Your task to perform on an android device: Open display settings Image 0: 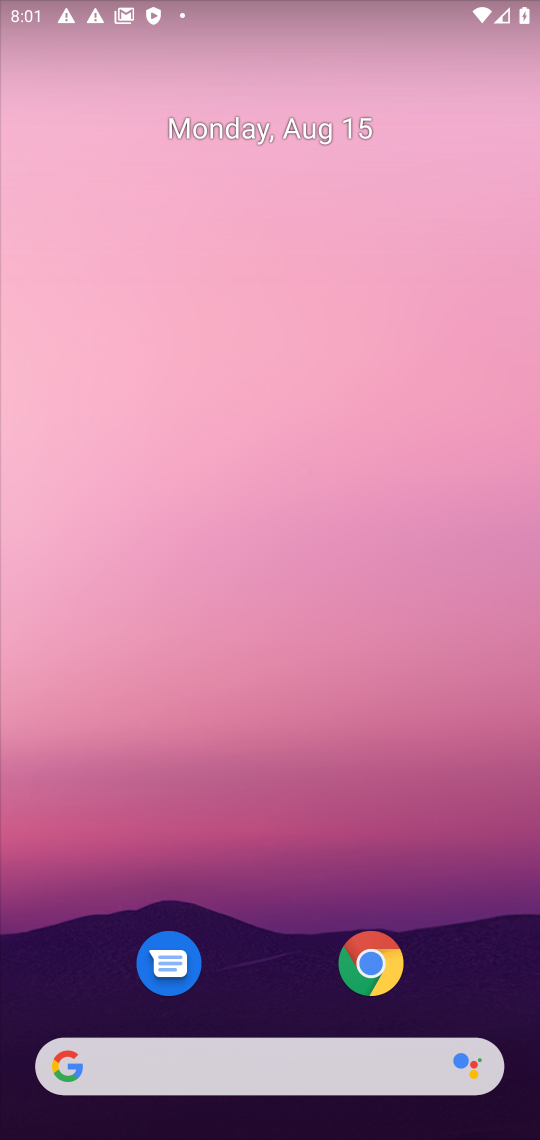
Step 0: drag from (268, 1015) to (243, 156)
Your task to perform on an android device: Open display settings Image 1: 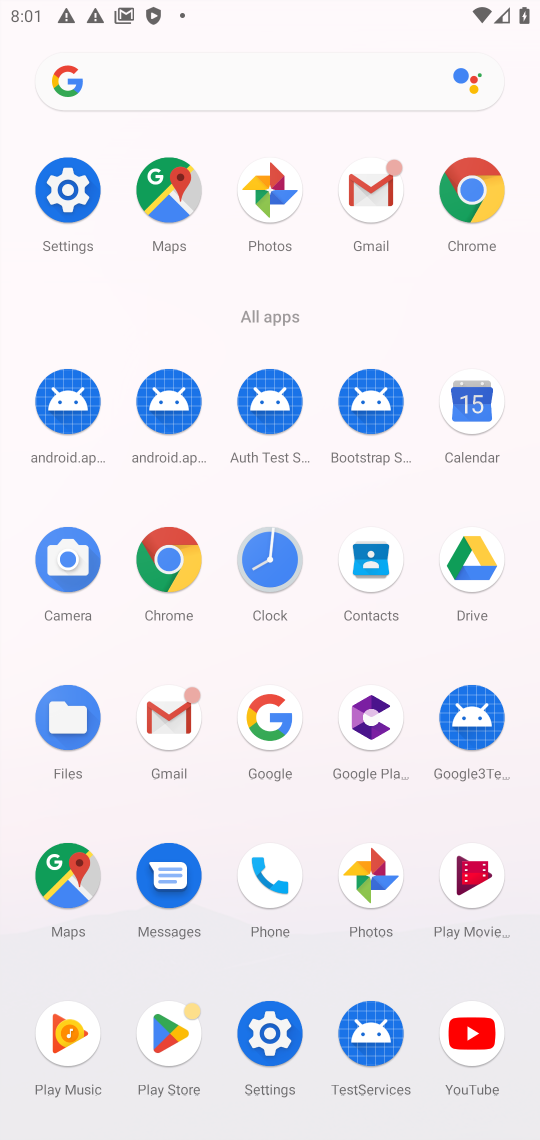
Step 1: click (70, 180)
Your task to perform on an android device: Open display settings Image 2: 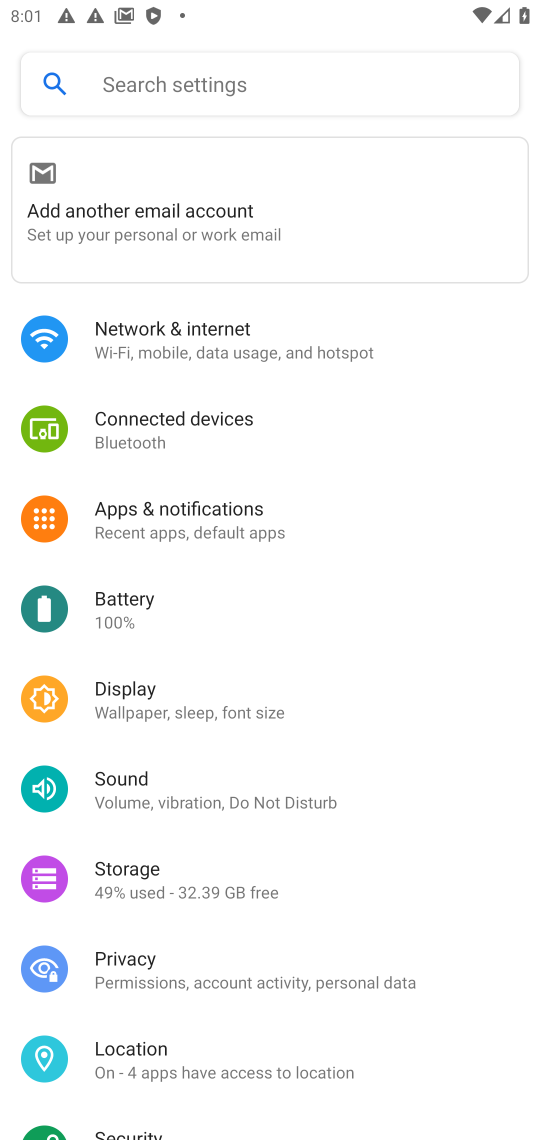
Step 2: click (128, 710)
Your task to perform on an android device: Open display settings Image 3: 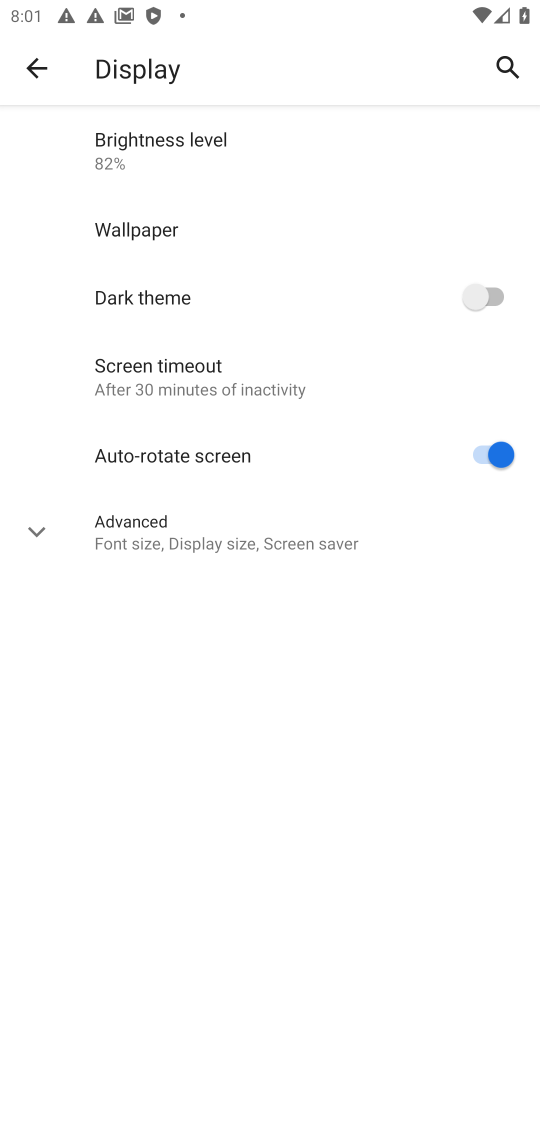
Step 3: task complete